Your task to perform on an android device: Open the map Image 0: 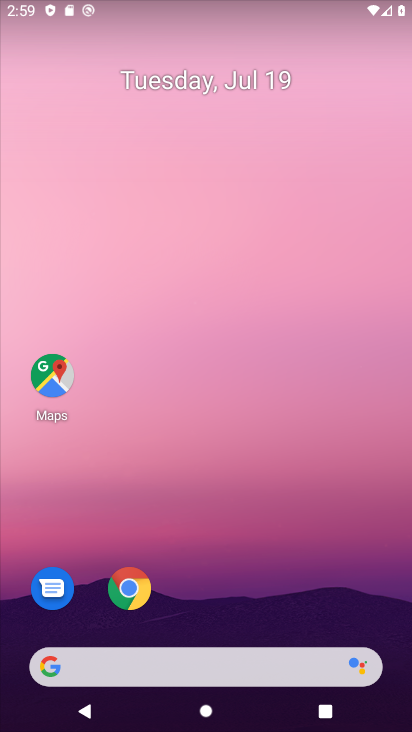
Step 0: click (51, 378)
Your task to perform on an android device: Open the map Image 1: 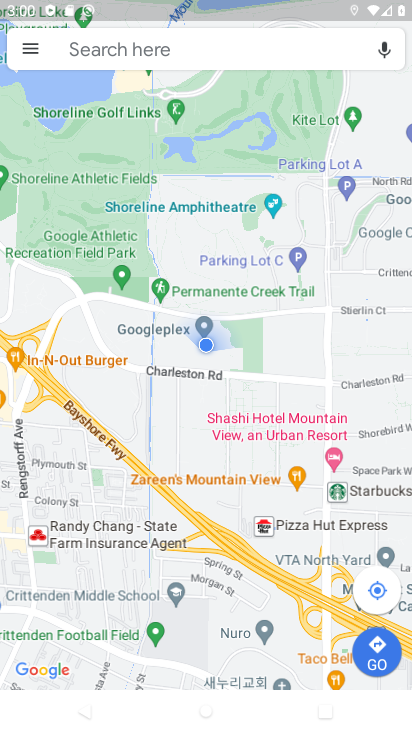
Step 1: task complete